Your task to perform on an android device: Go to network settings Image 0: 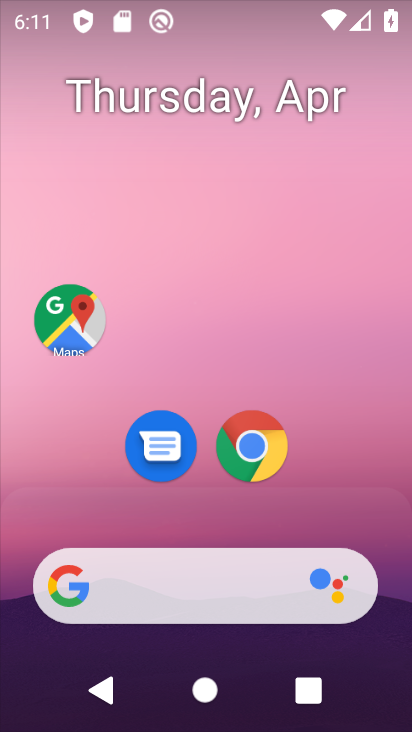
Step 0: drag from (189, 509) to (264, 6)
Your task to perform on an android device: Go to network settings Image 1: 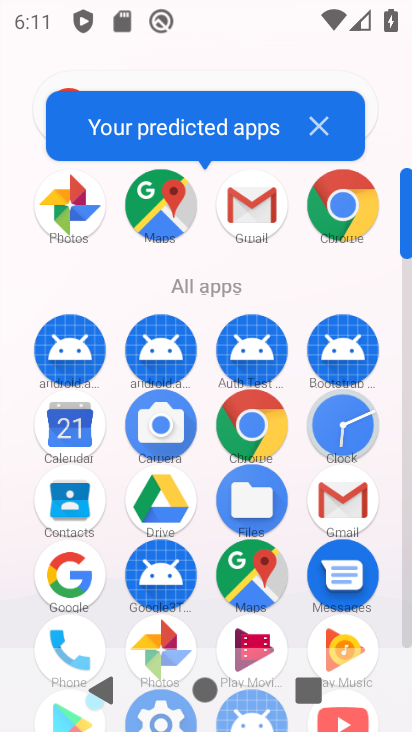
Step 1: drag from (186, 483) to (258, 101)
Your task to perform on an android device: Go to network settings Image 2: 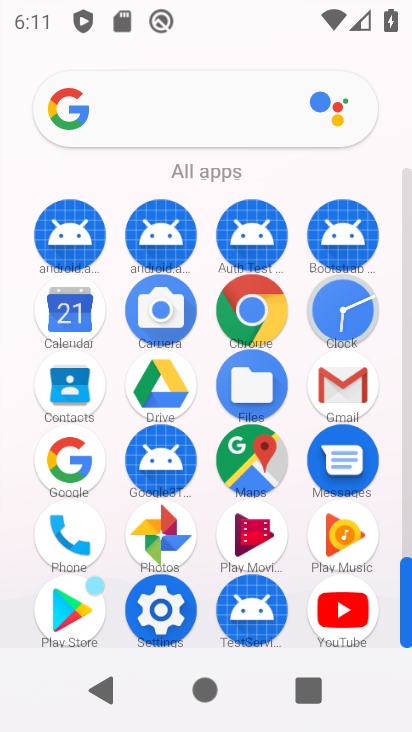
Step 2: click (166, 617)
Your task to perform on an android device: Go to network settings Image 3: 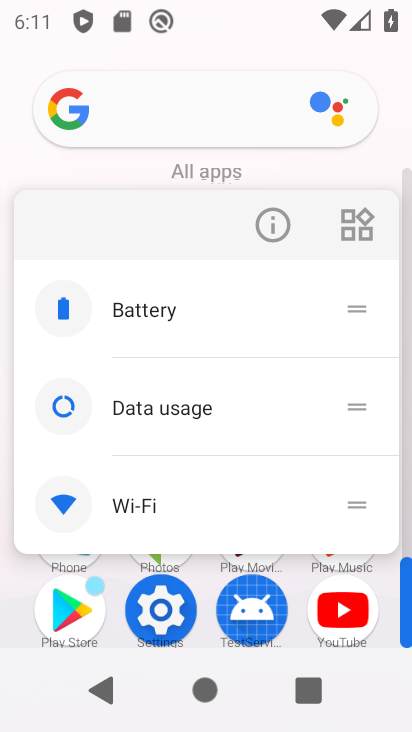
Step 3: click (163, 613)
Your task to perform on an android device: Go to network settings Image 4: 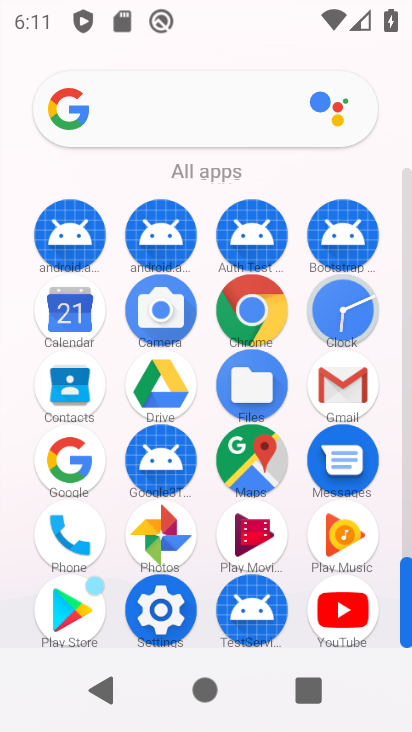
Step 4: click (156, 617)
Your task to perform on an android device: Go to network settings Image 5: 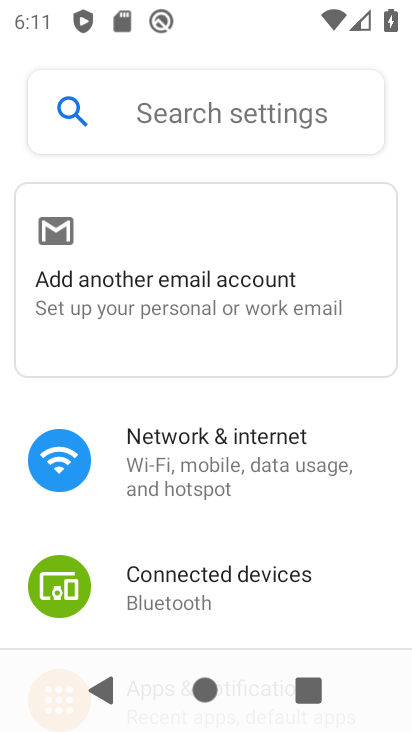
Step 5: click (243, 459)
Your task to perform on an android device: Go to network settings Image 6: 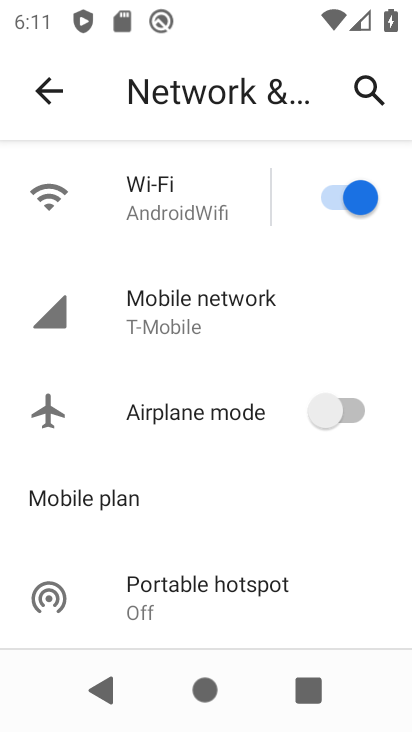
Step 6: task complete